Your task to perform on an android device: open wifi settings Image 0: 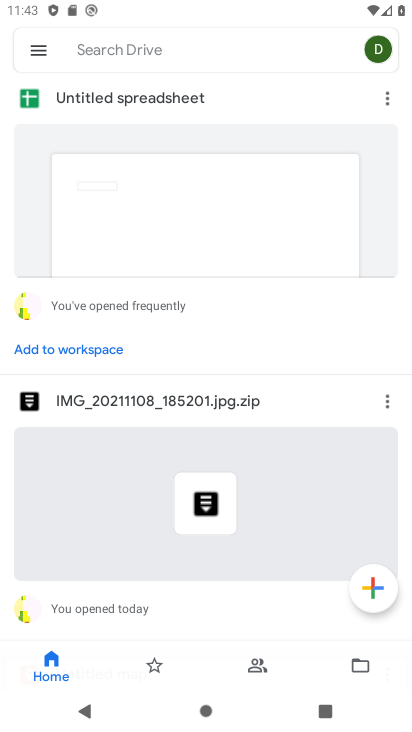
Step 0: press home button
Your task to perform on an android device: open wifi settings Image 1: 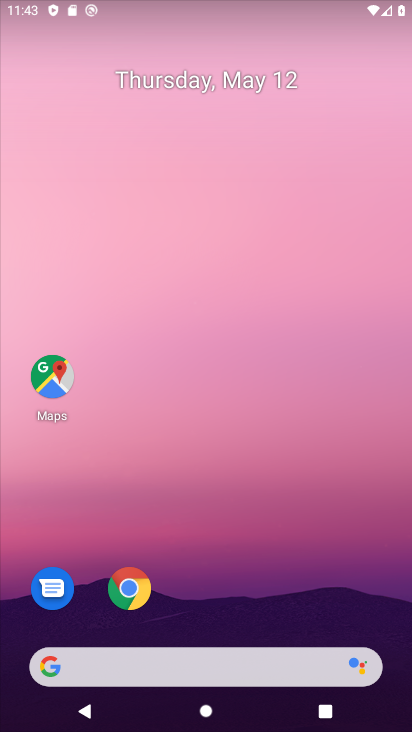
Step 1: drag from (225, 567) to (244, 57)
Your task to perform on an android device: open wifi settings Image 2: 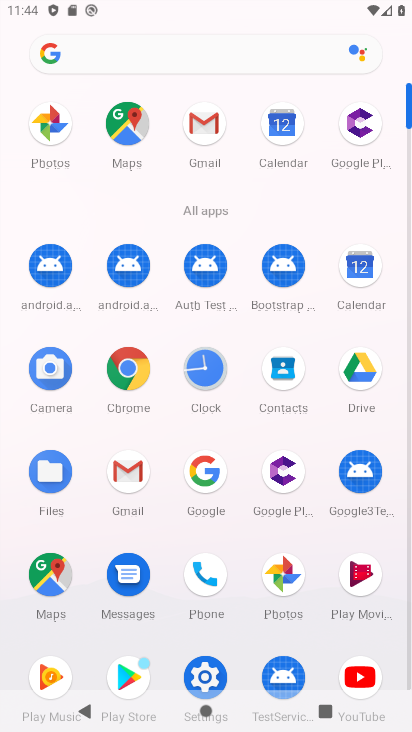
Step 2: click (217, 360)
Your task to perform on an android device: open wifi settings Image 3: 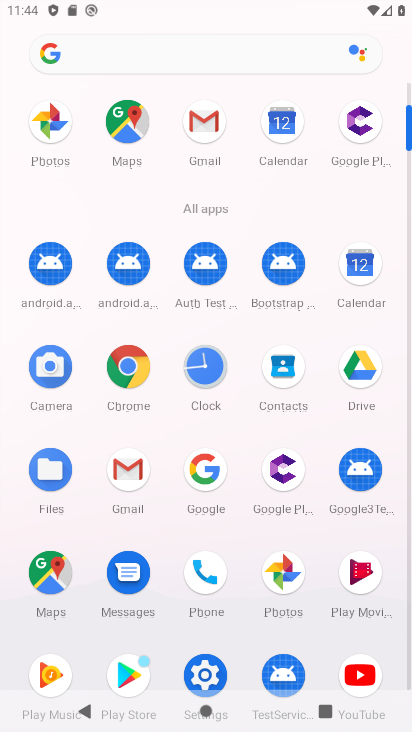
Step 3: click (201, 672)
Your task to perform on an android device: open wifi settings Image 4: 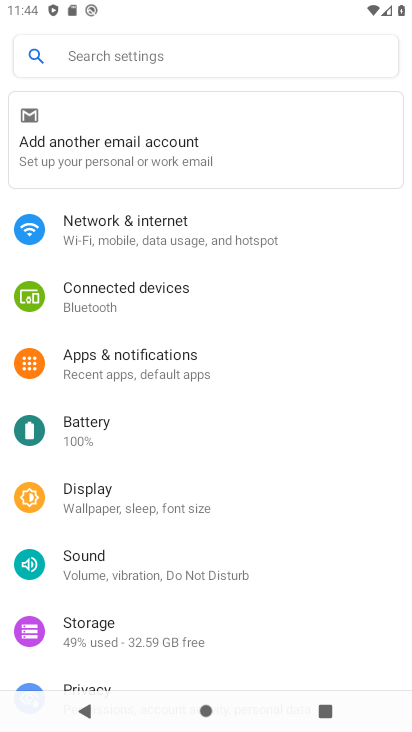
Step 4: click (191, 247)
Your task to perform on an android device: open wifi settings Image 5: 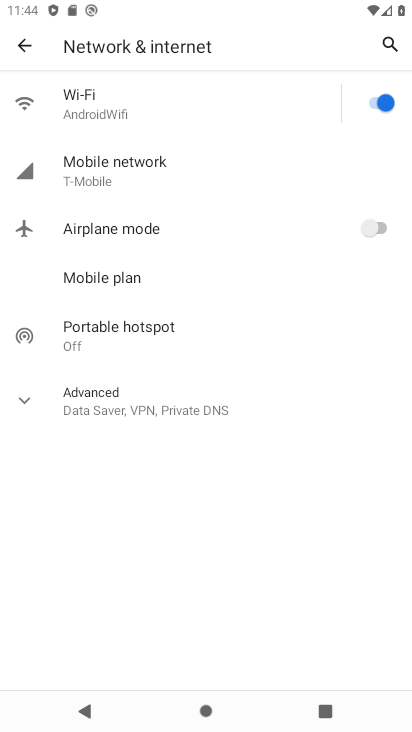
Step 5: click (204, 101)
Your task to perform on an android device: open wifi settings Image 6: 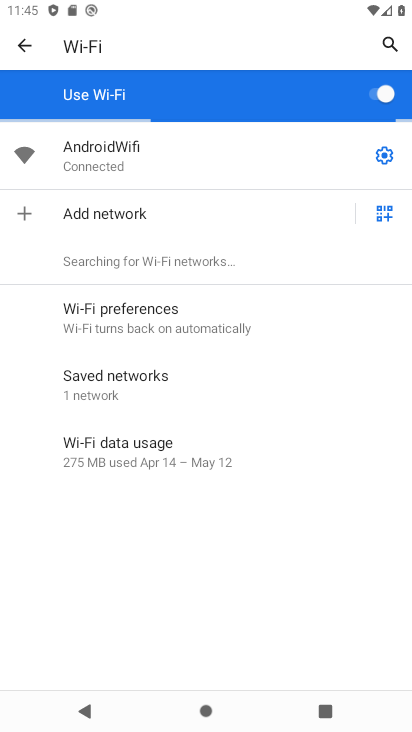
Step 6: task complete